Your task to perform on an android device: Open the map Image 0: 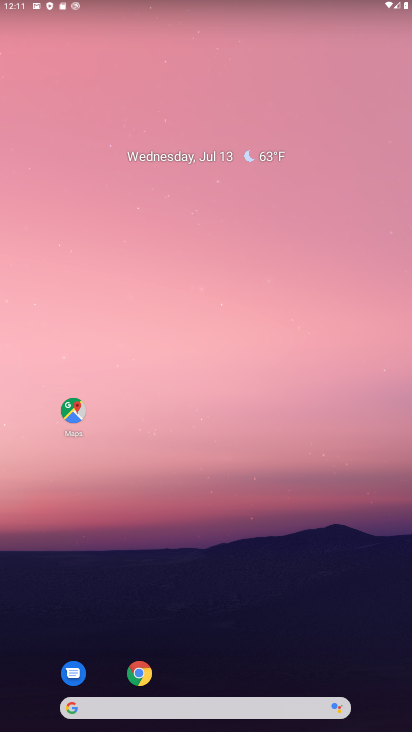
Step 0: press home button
Your task to perform on an android device: Open the map Image 1: 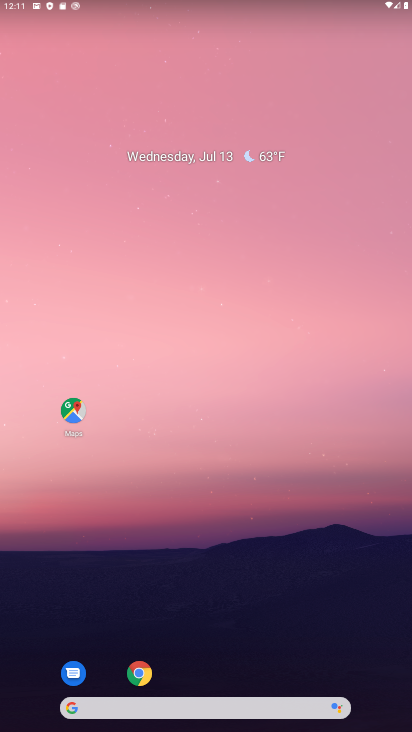
Step 1: drag from (327, 673) to (290, 76)
Your task to perform on an android device: Open the map Image 2: 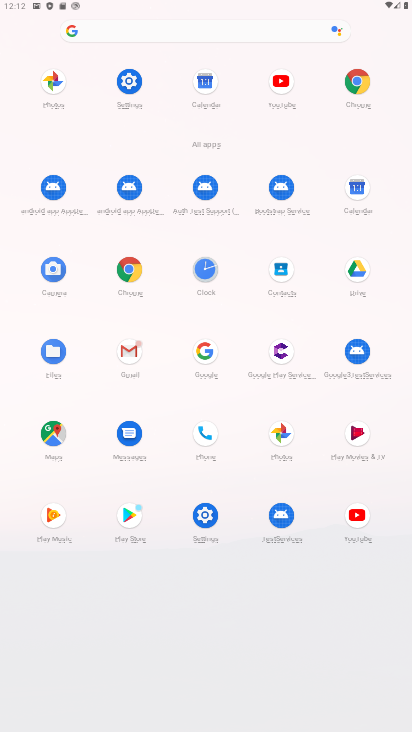
Step 2: click (125, 256)
Your task to perform on an android device: Open the map Image 3: 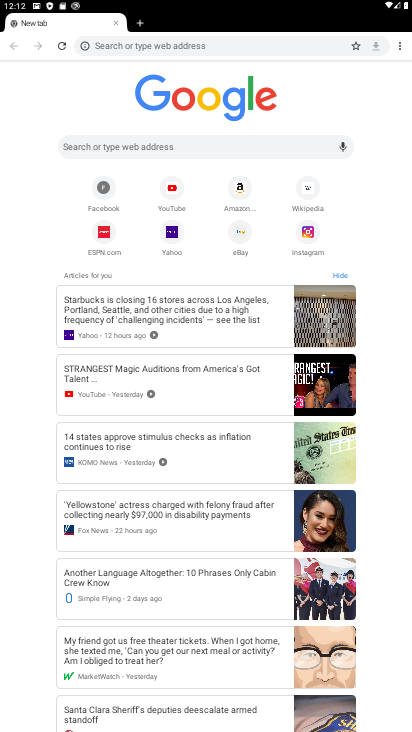
Step 3: press home button
Your task to perform on an android device: Open the map Image 4: 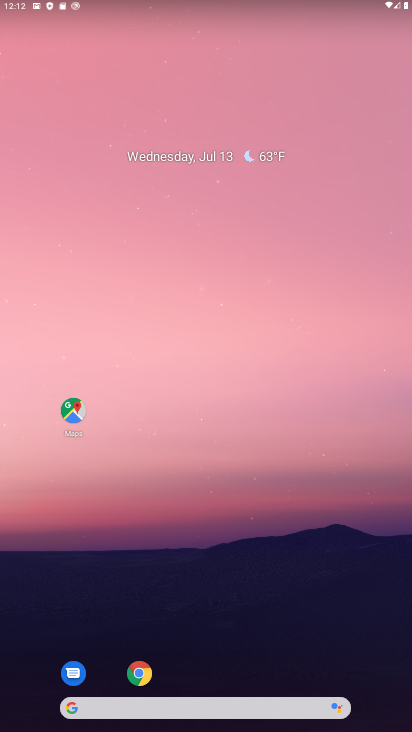
Step 4: drag from (273, 641) to (226, 572)
Your task to perform on an android device: Open the map Image 5: 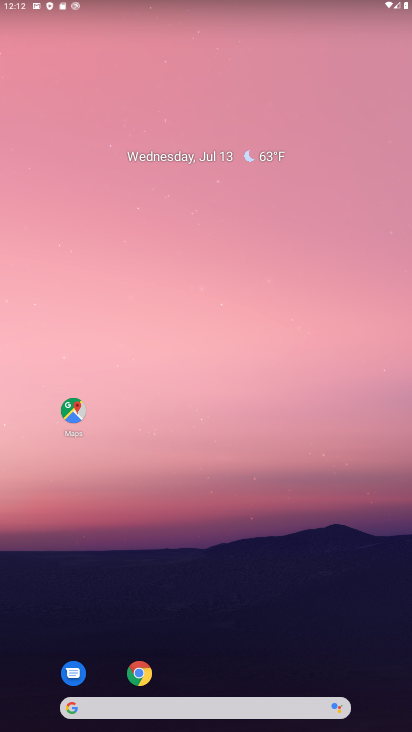
Step 5: click (76, 398)
Your task to perform on an android device: Open the map Image 6: 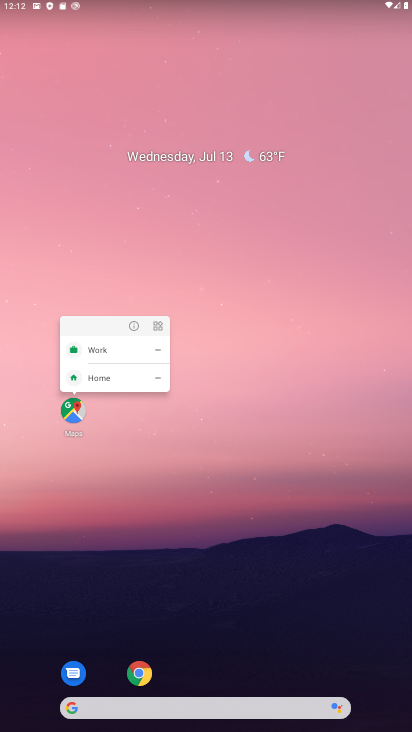
Step 6: click (76, 398)
Your task to perform on an android device: Open the map Image 7: 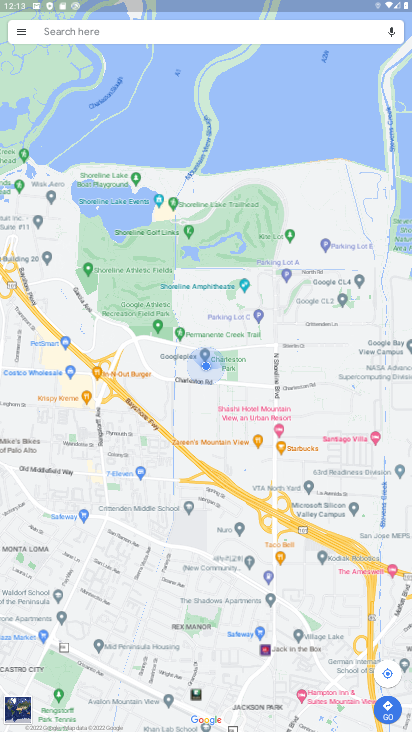
Step 7: task complete